Your task to perform on an android device: open app "PlayWell" (install if not already installed), go to login, and select forgot password Image 0: 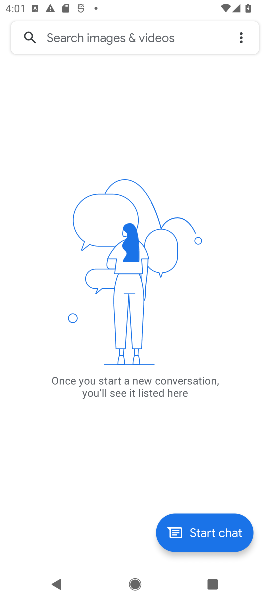
Step 0: press home button
Your task to perform on an android device: open app "PlayWell" (install if not already installed), go to login, and select forgot password Image 1: 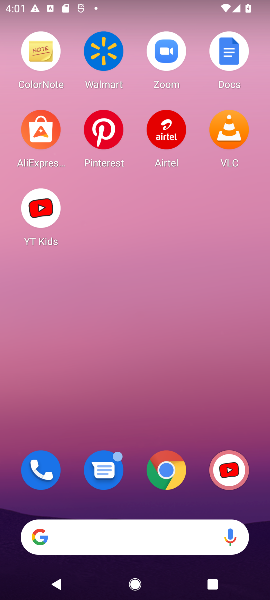
Step 1: drag from (138, 516) to (220, 56)
Your task to perform on an android device: open app "PlayWell" (install if not already installed), go to login, and select forgot password Image 2: 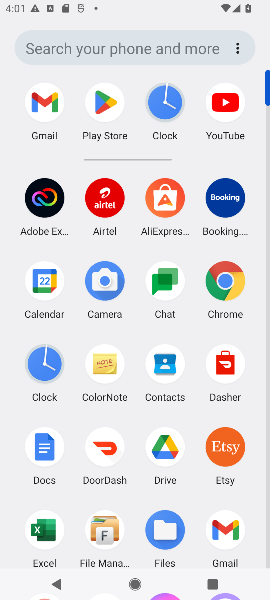
Step 2: drag from (133, 403) to (165, 131)
Your task to perform on an android device: open app "PlayWell" (install if not already installed), go to login, and select forgot password Image 3: 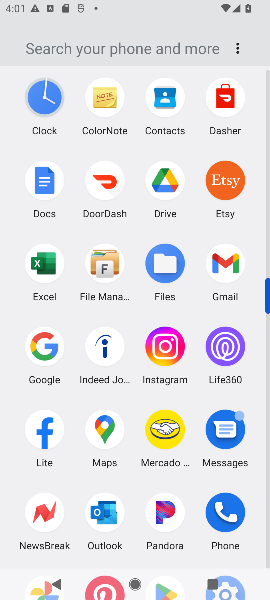
Step 3: drag from (106, 501) to (182, 182)
Your task to perform on an android device: open app "PlayWell" (install if not already installed), go to login, and select forgot password Image 4: 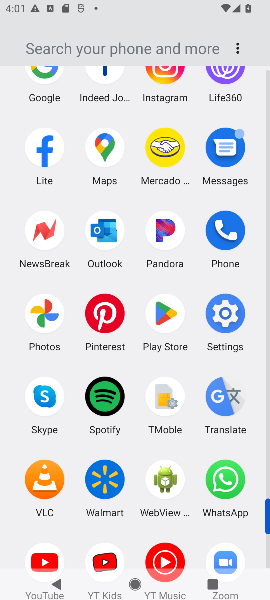
Step 4: click (158, 308)
Your task to perform on an android device: open app "PlayWell" (install if not already installed), go to login, and select forgot password Image 5: 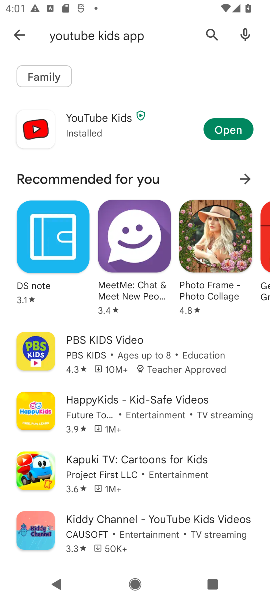
Step 5: click (24, 39)
Your task to perform on an android device: open app "PlayWell" (install if not already installed), go to login, and select forgot password Image 6: 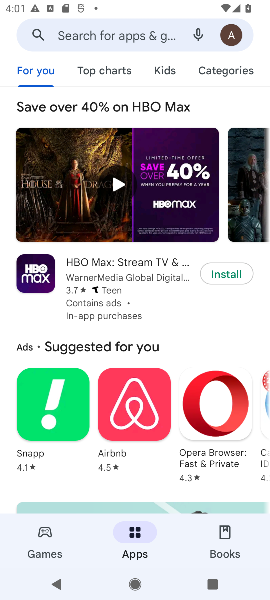
Step 6: click (82, 27)
Your task to perform on an android device: open app "PlayWell" (install if not already installed), go to login, and select forgot password Image 7: 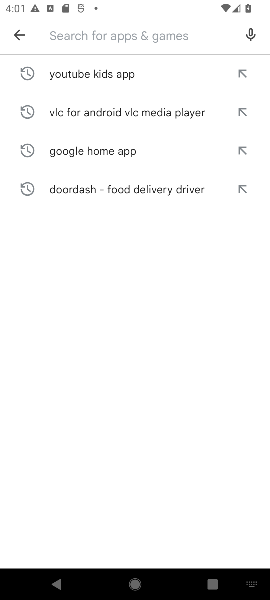
Step 7: type "playwell "
Your task to perform on an android device: open app "PlayWell" (install if not already installed), go to login, and select forgot password Image 8: 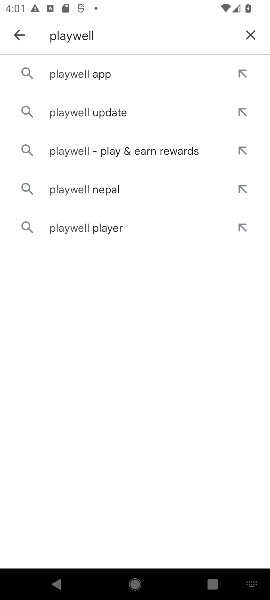
Step 8: click (79, 76)
Your task to perform on an android device: open app "PlayWell" (install if not already installed), go to login, and select forgot password Image 9: 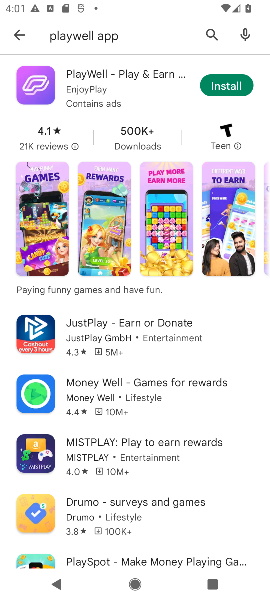
Step 9: click (232, 82)
Your task to perform on an android device: open app "PlayWell" (install if not already installed), go to login, and select forgot password Image 10: 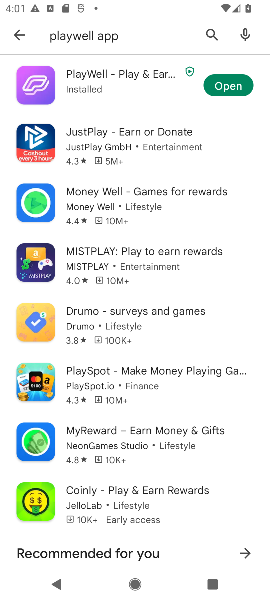
Step 10: click (232, 84)
Your task to perform on an android device: open app "PlayWell" (install if not already installed), go to login, and select forgot password Image 11: 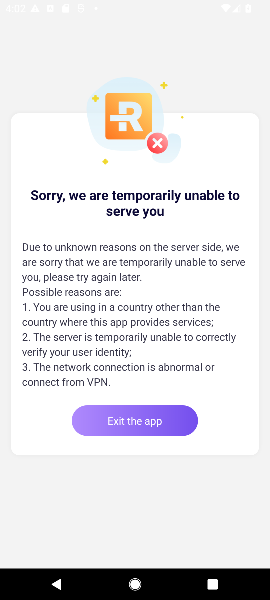
Step 11: task complete